Your task to perform on an android device: Go to Google maps Image 0: 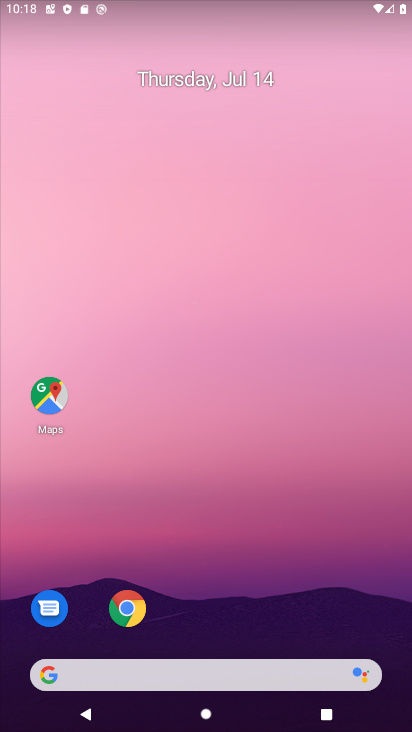
Step 0: drag from (238, 711) to (223, 224)
Your task to perform on an android device: Go to Google maps Image 1: 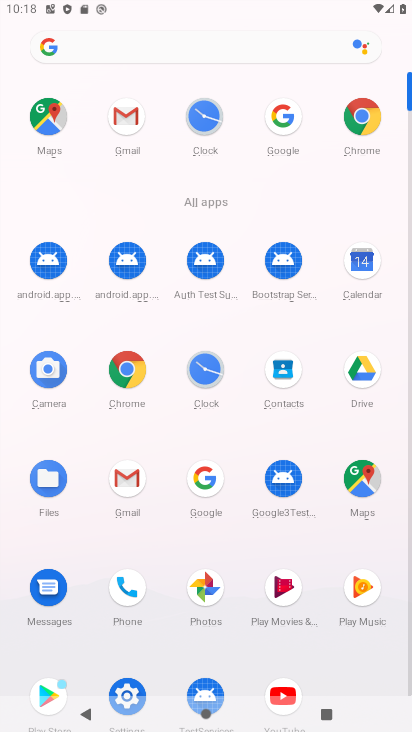
Step 1: click (357, 490)
Your task to perform on an android device: Go to Google maps Image 2: 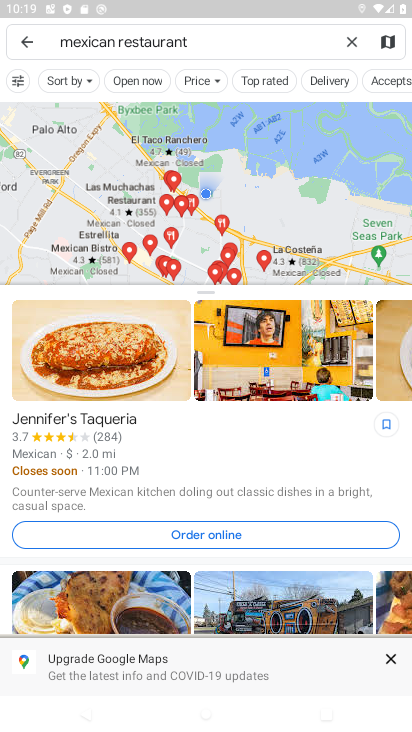
Step 2: task complete